Your task to perform on an android device: clear history in the chrome app Image 0: 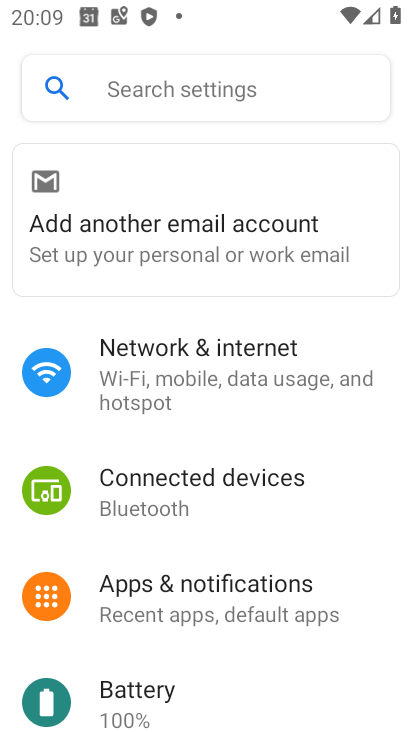
Step 0: press home button
Your task to perform on an android device: clear history in the chrome app Image 1: 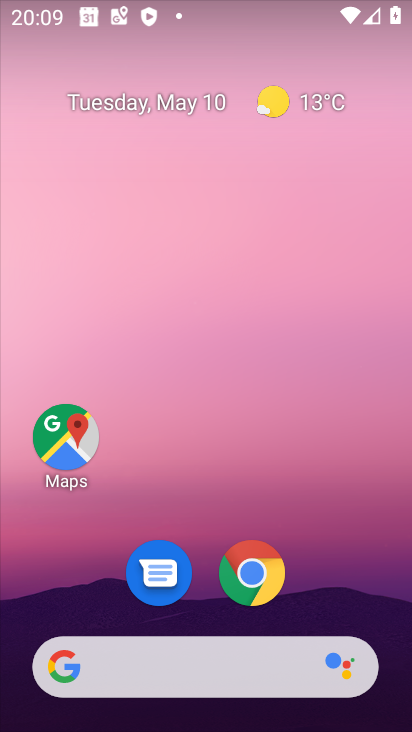
Step 1: click (259, 578)
Your task to perform on an android device: clear history in the chrome app Image 2: 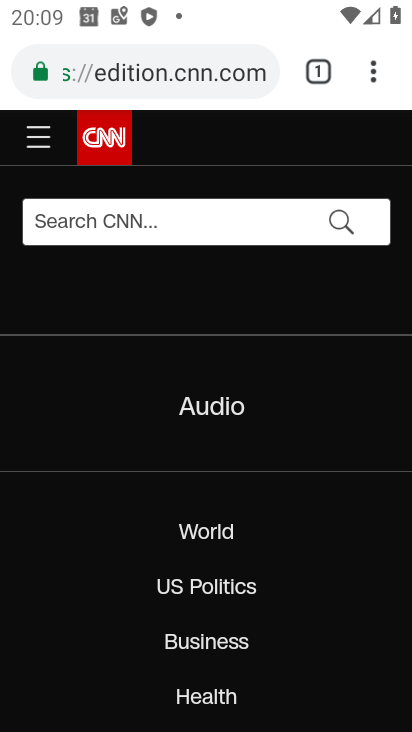
Step 2: click (378, 71)
Your task to perform on an android device: clear history in the chrome app Image 3: 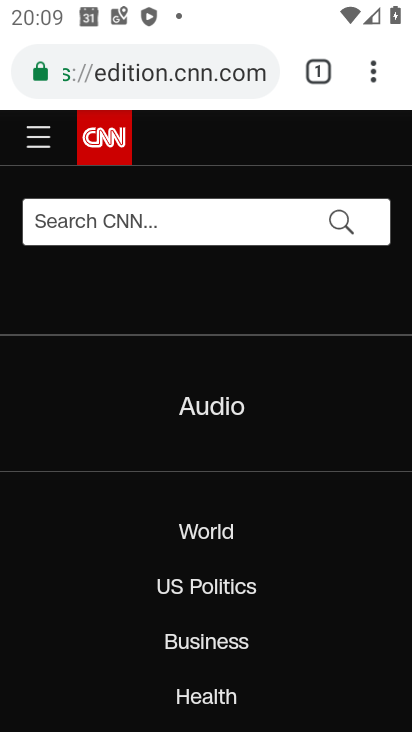
Step 3: drag from (372, 75) to (151, 573)
Your task to perform on an android device: clear history in the chrome app Image 4: 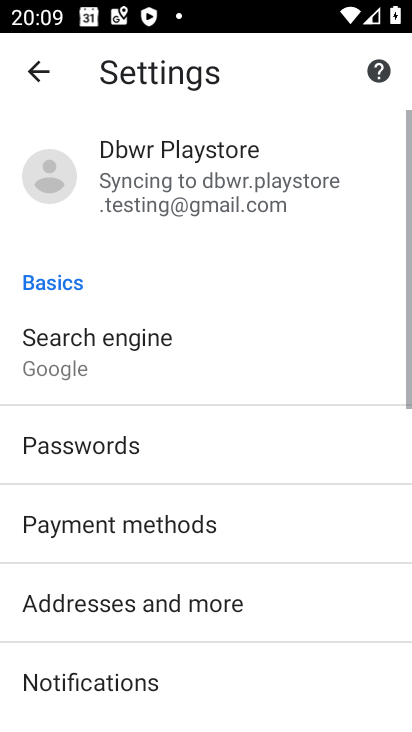
Step 4: drag from (229, 640) to (221, 274)
Your task to perform on an android device: clear history in the chrome app Image 5: 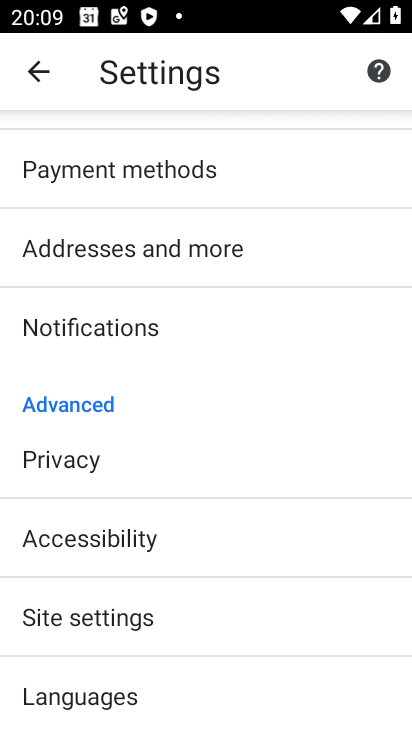
Step 5: click (63, 463)
Your task to perform on an android device: clear history in the chrome app Image 6: 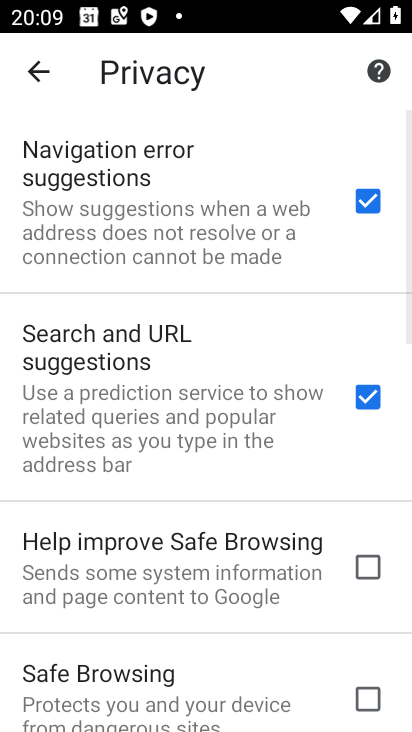
Step 6: drag from (116, 613) to (131, 149)
Your task to perform on an android device: clear history in the chrome app Image 7: 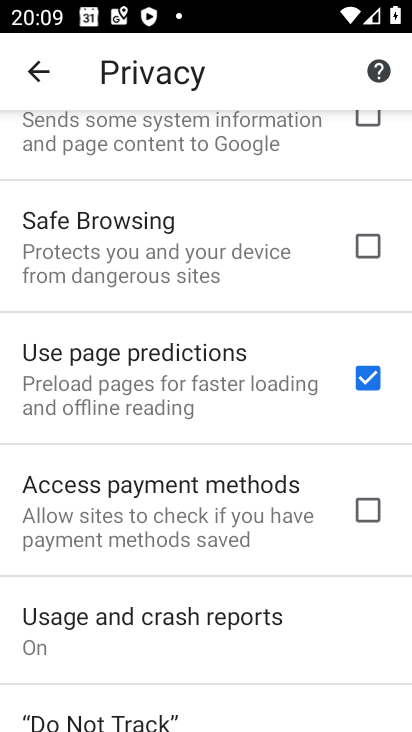
Step 7: drag from (130, 633) to (109, 159)
Your task to perform on an android device: clear history in the chrome app Image 8: 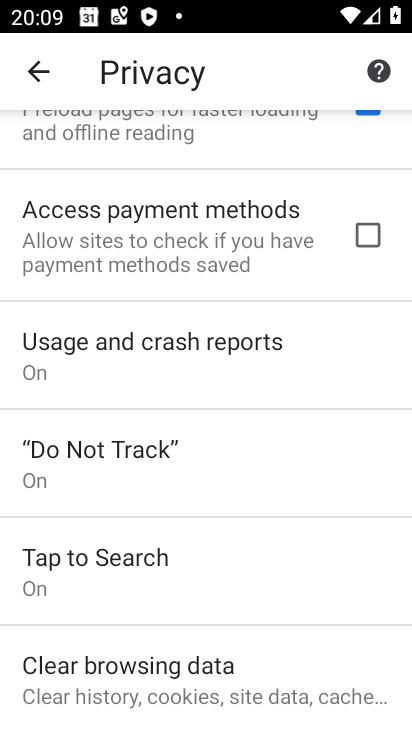
Step 8: click (86, 669)
Your task to perform on an android device: clear history in the chrome app Image 9: 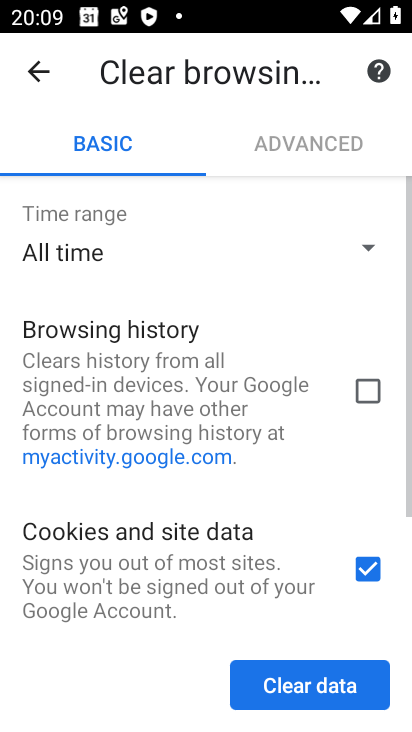
Step 9: click (367, 388)
Your task to perform on an android device: clear history in the chrome app Image 10: 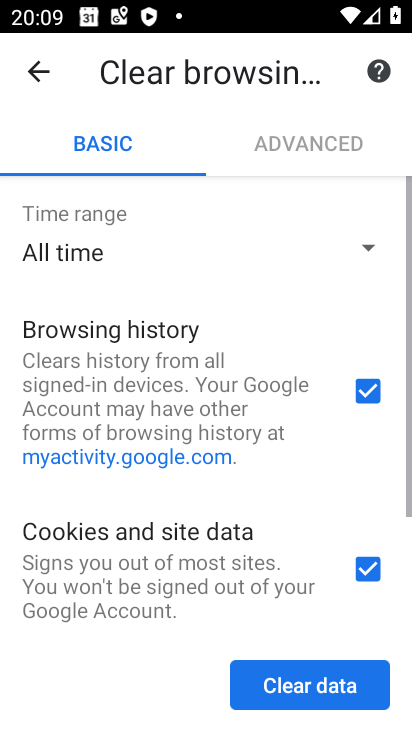
Step 10: drag from (106, 469) to (105, 280)
Your task to perform on an android device: clear history in the chrome app Image 11: 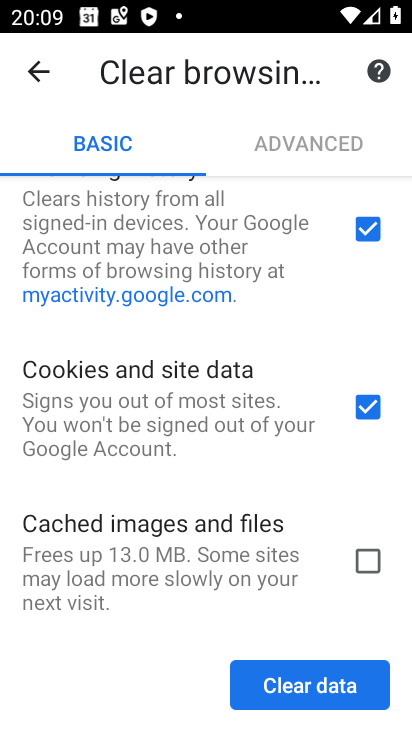
Step 11: click (358, 404)
Your task to perform on an android device: clear history in the chrome app Image 12: 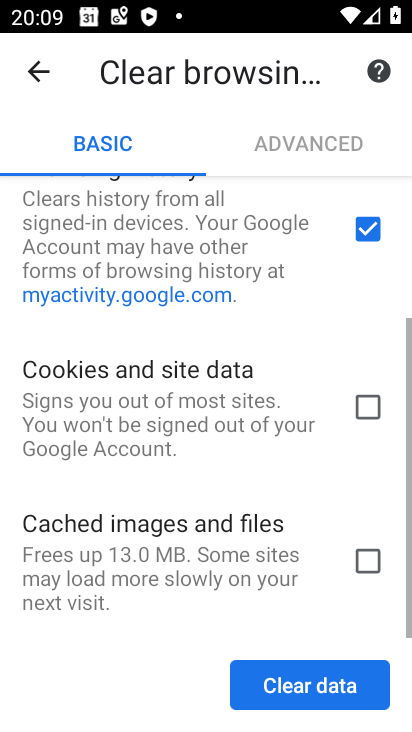
Step 12: click (305, 700)
Your task to perform on an android device: clear history in the chrome app Image 13: 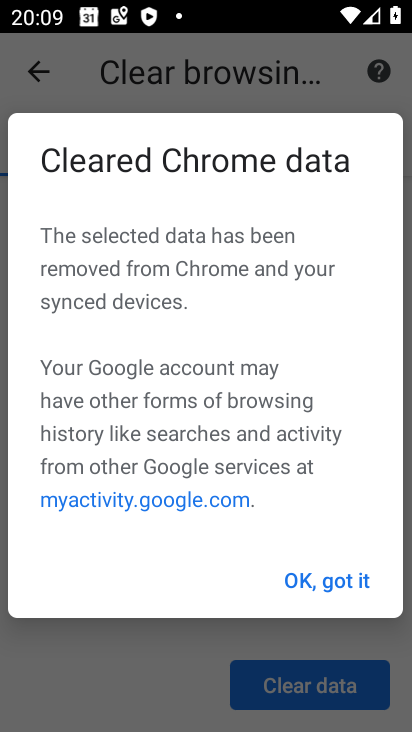
Step 13: click (309, 581)
Your task to perform on an android device: clear history in the chrome app Image 14: 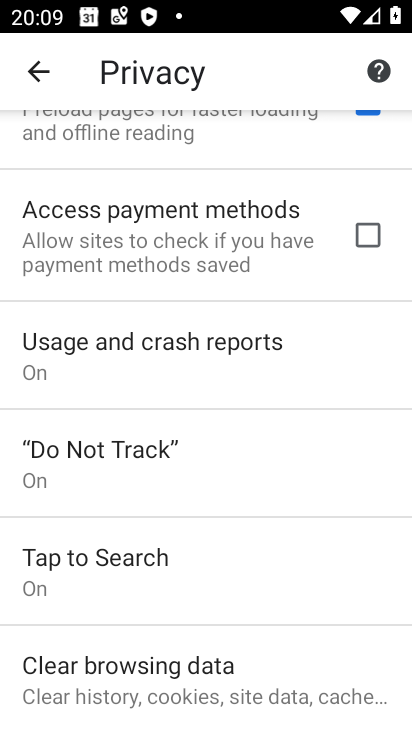
Step 14: task complete